Your task to perform on an android device: Open the map Image 0: 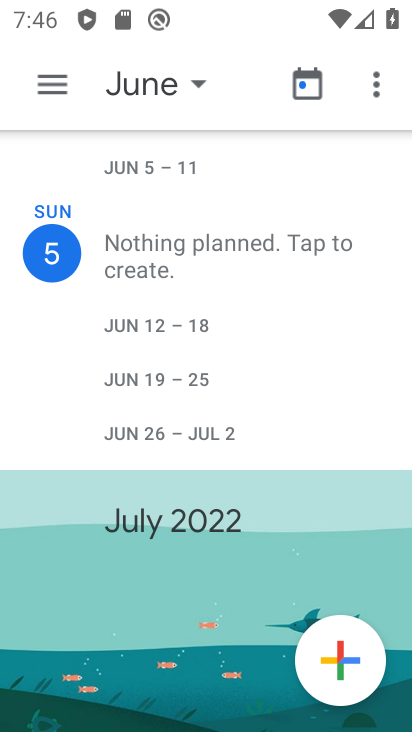
Step 0: press home button
Your task to perform on an android device: Open the map Image 1: 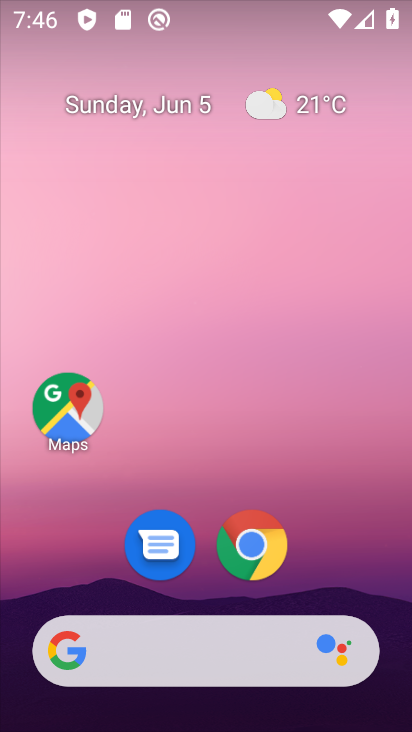
Step 1: drag from (348, 561) to (346, 118)
Your task to perform on an android device: Open the map Image 2: 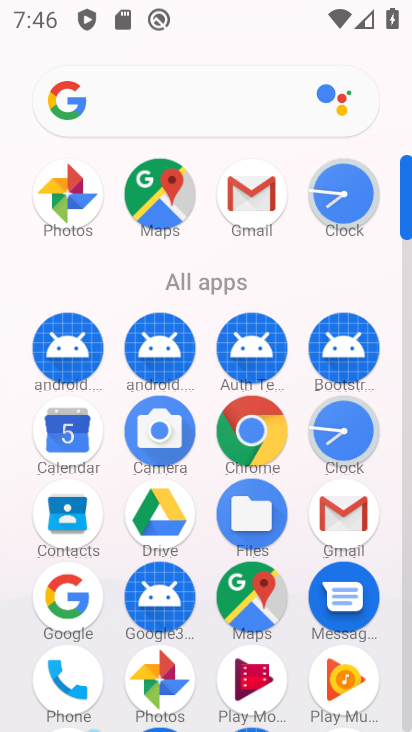
Step 2: click (259, 588)
Your task to perform on an android device: Open the map Image 3: 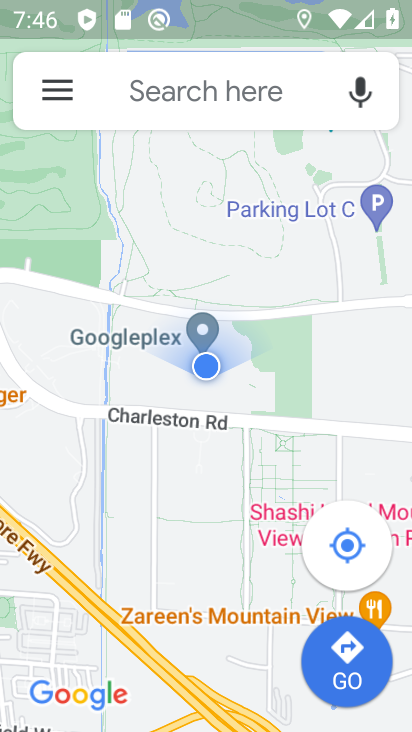
Step 3: task complete